Your task to perform on an android device: Turn off the flashlight Image 0: 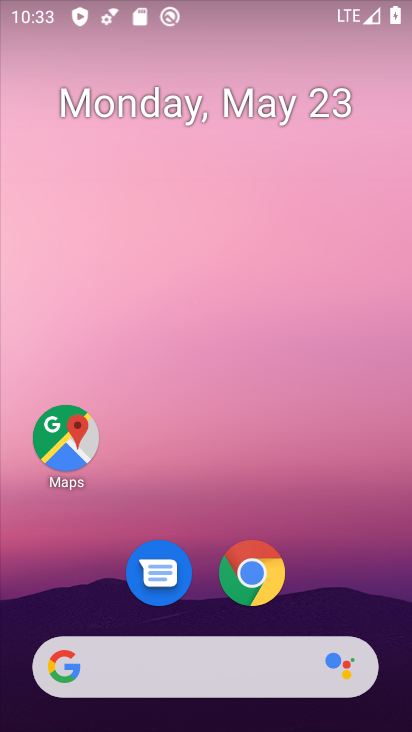
Step 0: drag from (282, 14) to (258, 477)
Your task to perform on an android device: Turn off the flashlight Image 1: 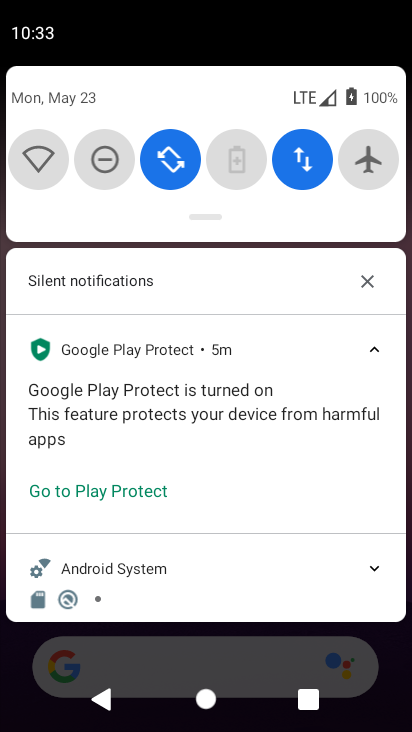
Step 1: task complete